Your task to perform on an android device: set the stopwatch Image 0: 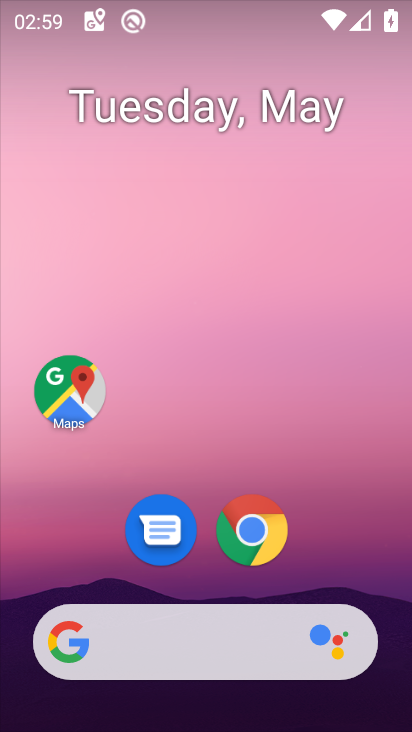
Step 0: drag from (7, 698) to (335, 108)
Your task to perform on an android device: set the stopwatch Image 1: 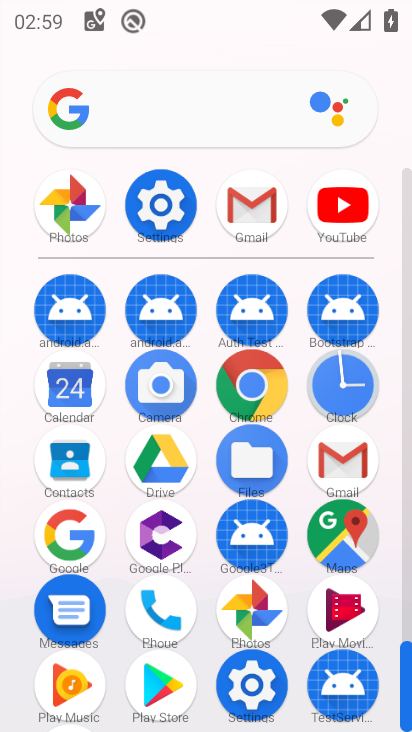
Step 1: click (342, 382)
Your task to perform on an android device: set the stopwatch Image 2: 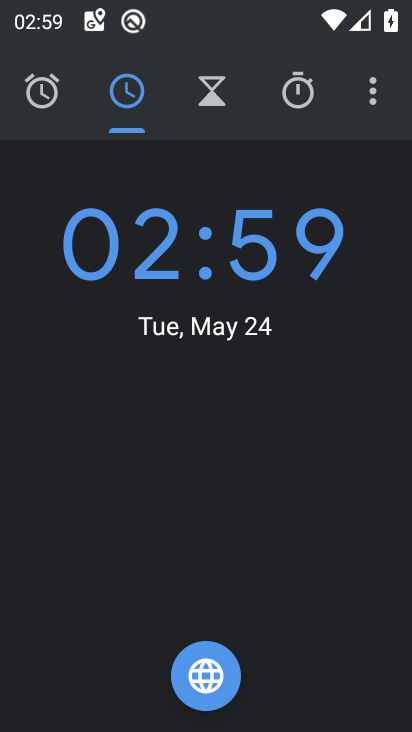
Step 2: click (304, 92)
Your task to perform on an android device: set the stopwatch Image 3: 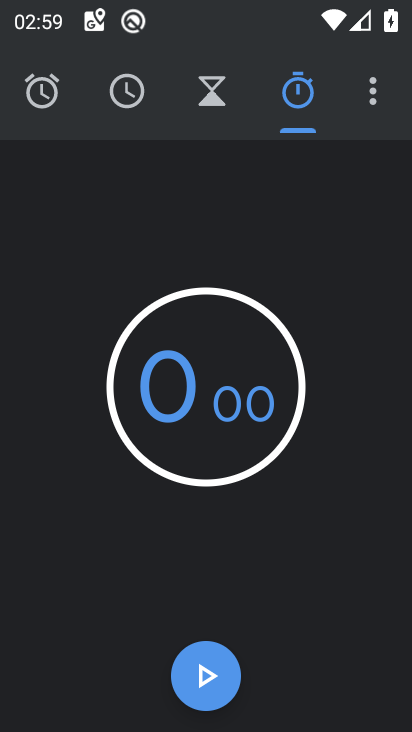
Step 3: click (201, 630)
Your task to perform on an android device: set the stopwatch Image 4: 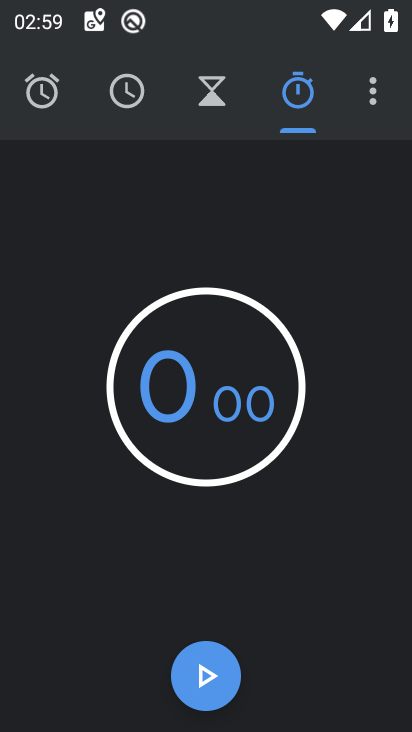
Step 4: click (206, 661)
Your task to perform on an android device: set the stopwatch Image 5: 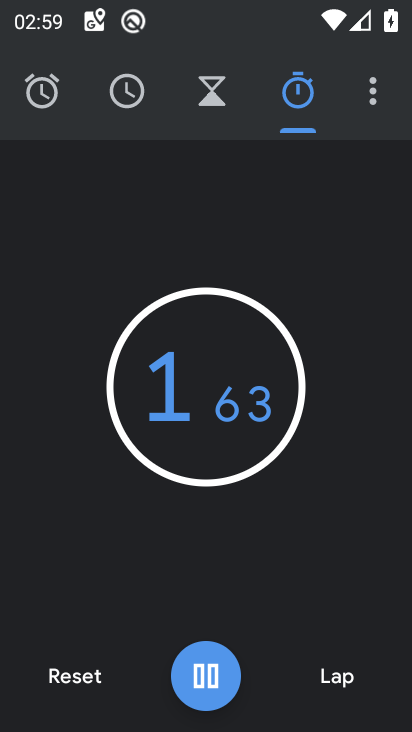
Step 5: task complete